Your task to perform on an android device: show emergency info Image 0: 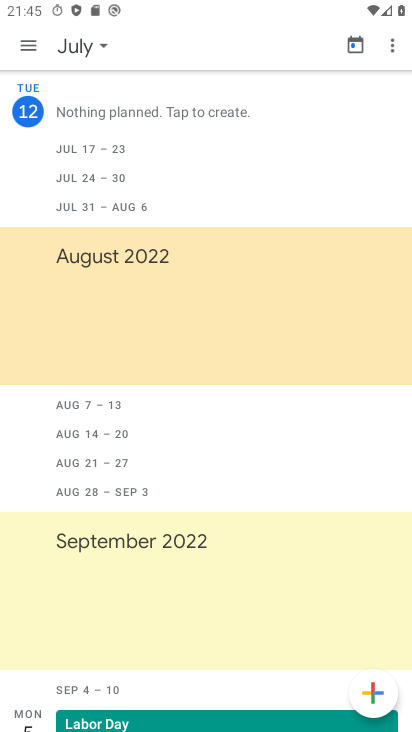
Step 0: press back button
Your task to perform on an android device: show emergency info Image 1: 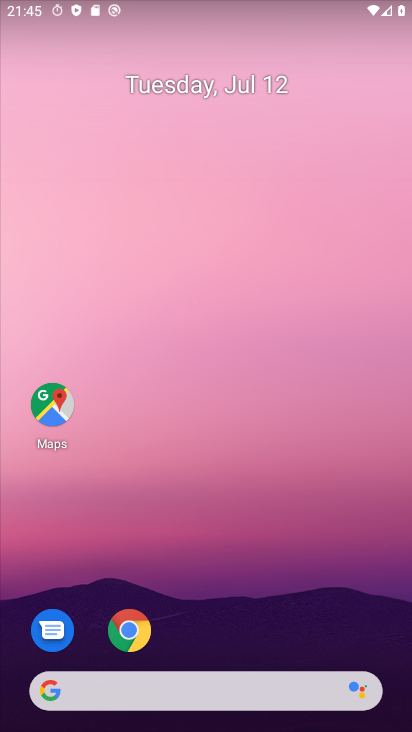
Step 1: drag from (241, 633) to (320, 17)
Your task to perform on an android device: show emergency info Image 2: 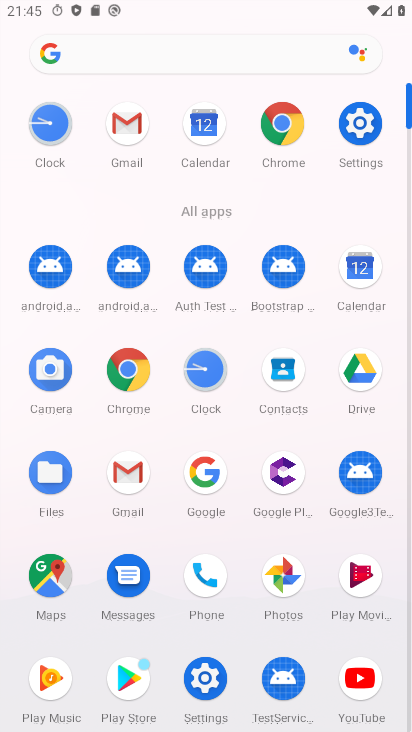
Step 2: click (364, 132)
Your task to perform on an android device: show emergency info Image 3: 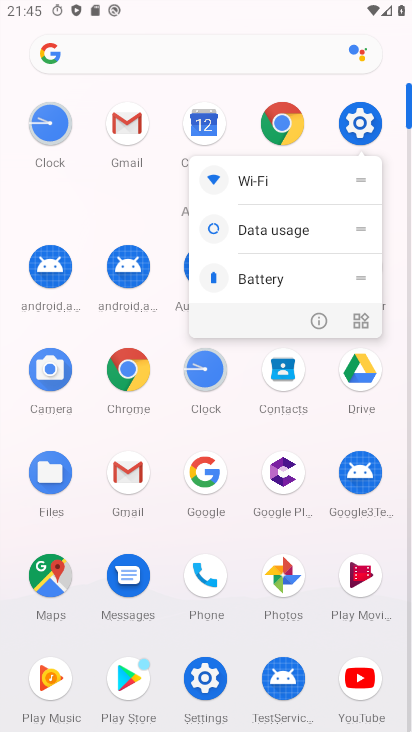
Step 3: click (355, 111)
Your task to perform on an android device: show emergency info Image 4: 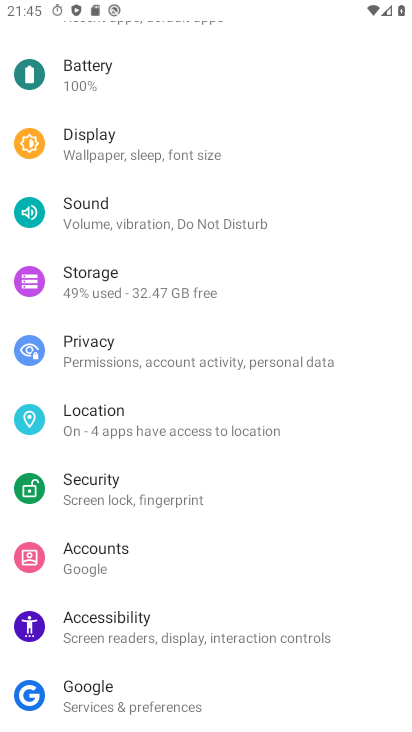
Step 4: drag from (148, 669) to (274, 33)
Your task to perform on an android device: show emergency info Image 5: 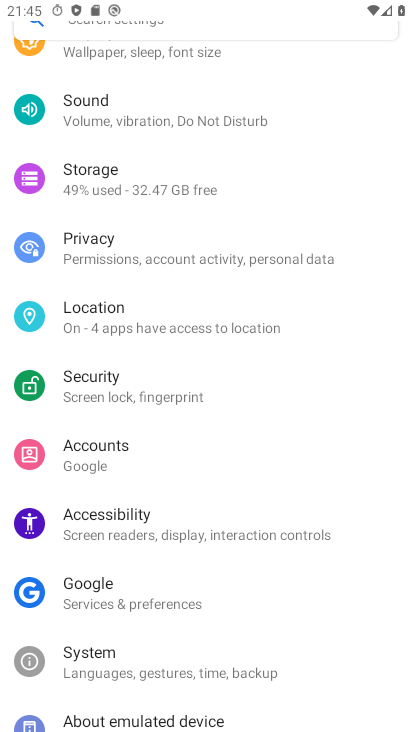
Step 5: drag from (128, 715) to (205, 165)
Your task to perform on an android device: show emergency info Image 6: 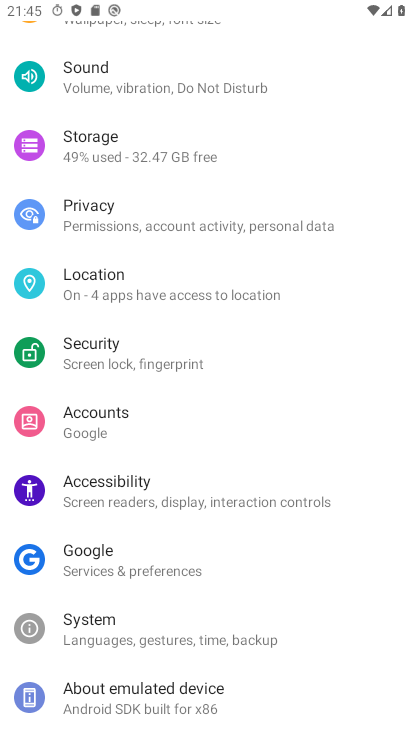
Step 6: drag from (154, 607) to (221, 39)
Your task to perform on an android device: show emergency info Image 7: 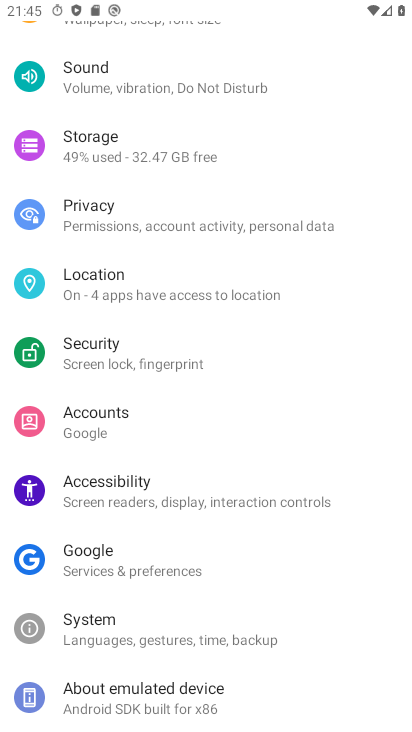
Step 7: click (159, 681)
Your task to perform on an android device: show emergency info Image 8: 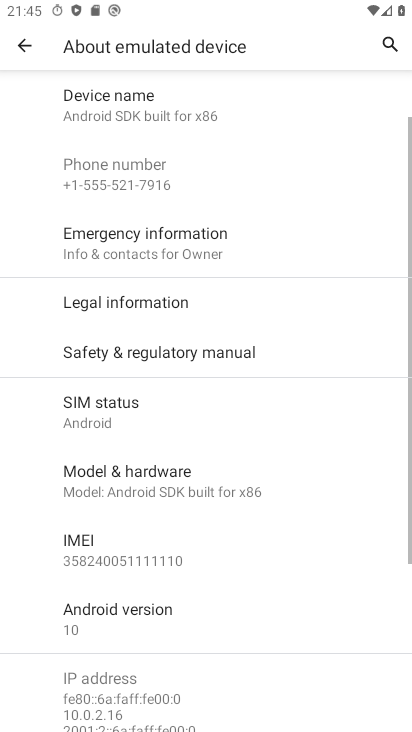
Step 8: click (203, 248)
Your task to perform on an android device: show emergency info Image 9: 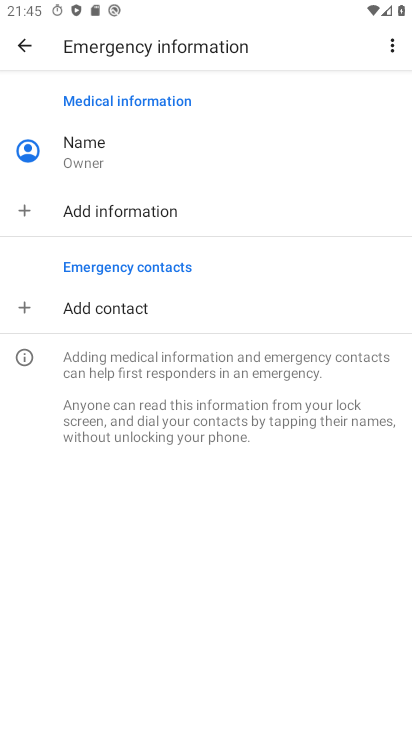
Step 9: task complete